Your task to perform on an android device: toggle data saver in the chrome app Image 0: 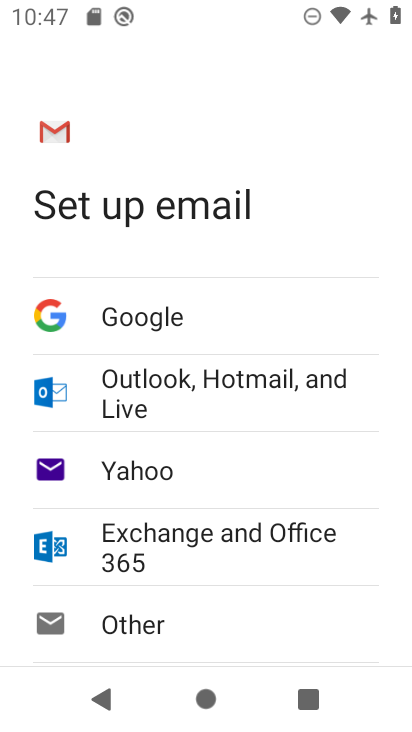
Step 0: press back button
Your task to perform on an android device: toggle data saver in the chrome app Image 1: 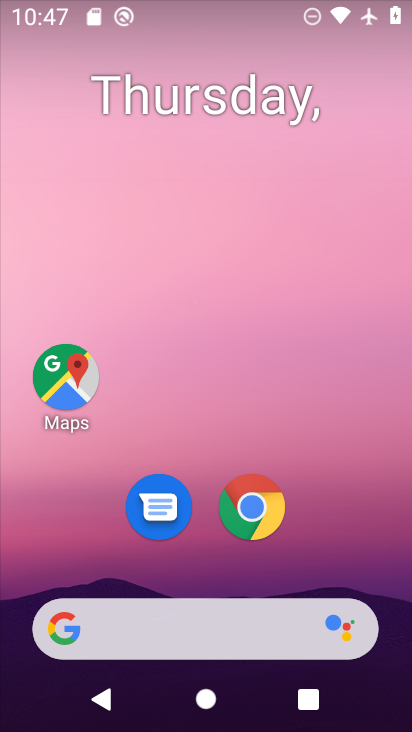
Step 1: drag from (315, 539) to (291, 31)
Your task to perform on an android device: toggle data saver in the chrome app Image 2: 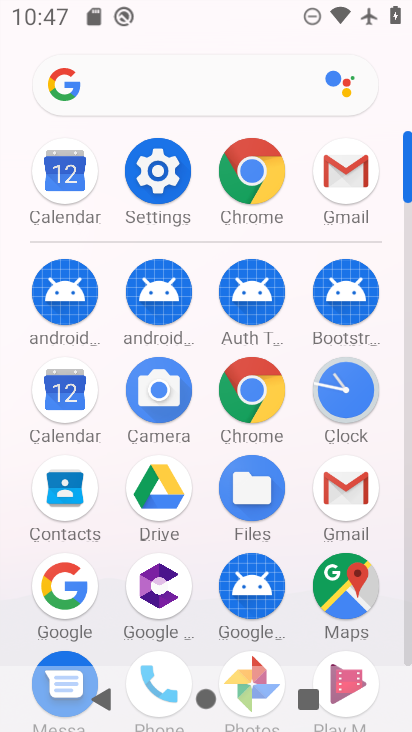
Step 2: click (250, 380)
Your task to perform on an android device: toggle data saver in the chrome app Image 3: 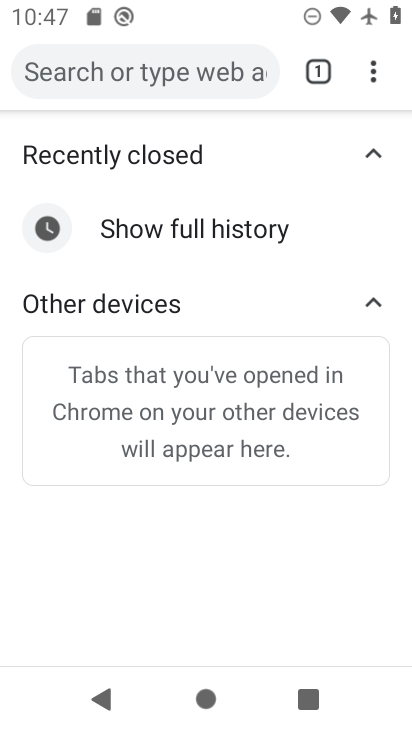
Step 3: drag from (373, 81) to (138, 499)
Your task to perform on an android device: toggle data saver in the chrome app Image 4: 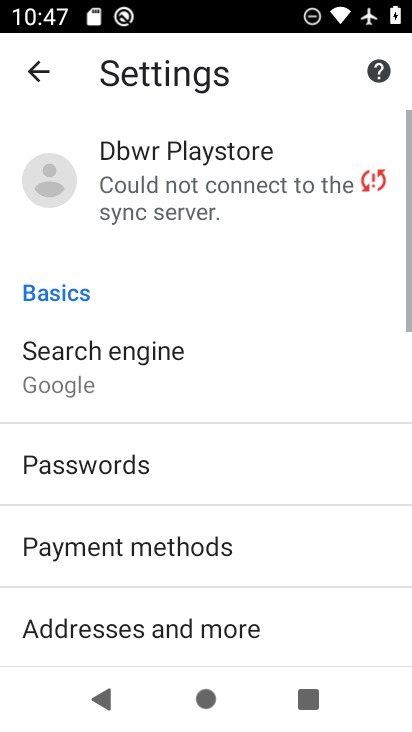
Step 4: drag from (246, 550) to (253, 181)
Your task to perform on an android device: toggle data saver in the chrome app Image 5: 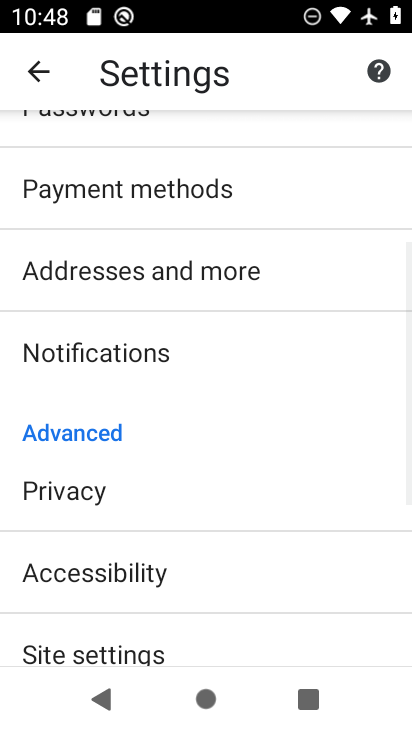
Step 5: drag from (213, 596) to (221, 175)
Your task to perform on an android device: toggle data saver in the chrome app Image 6: 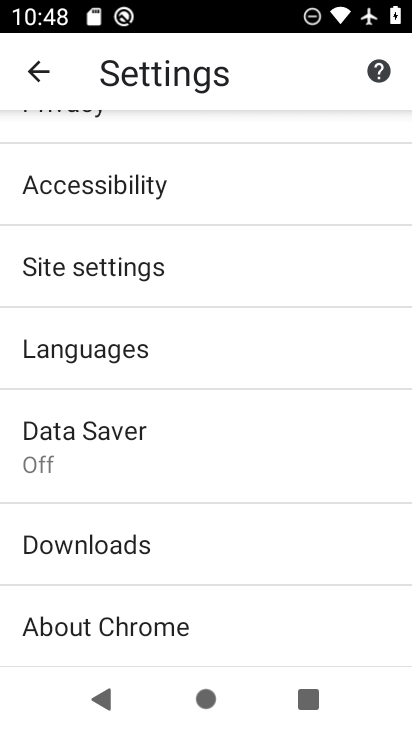
Step 6: drag from (188, 576) to (206, 276)
Your task to perform on an android device: toggle data saver in the chrome app Image 7: 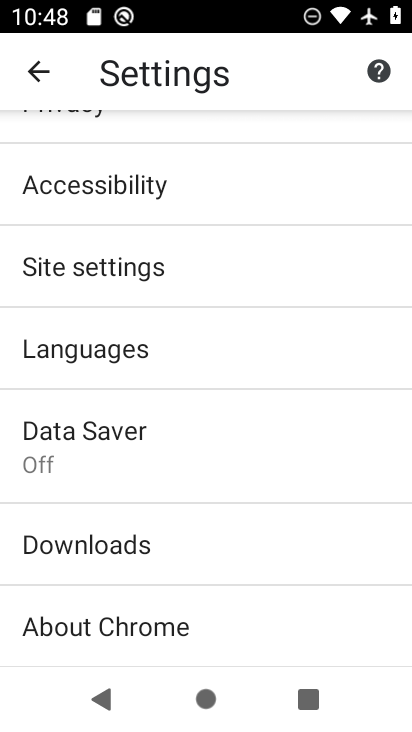
Step 7: click (126, 434)
Your task to perform on an android device: toggle data saver in the chrome app Image 8: 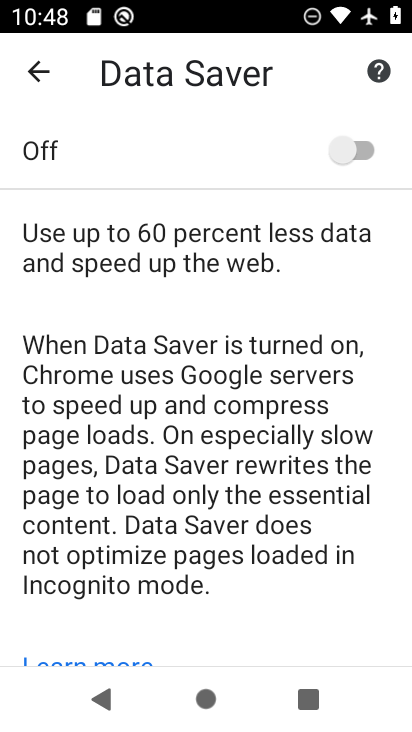
Step 8: click (355, 144)
Your task to perform on an android device: toggle data saver in the chrome app Image 9: 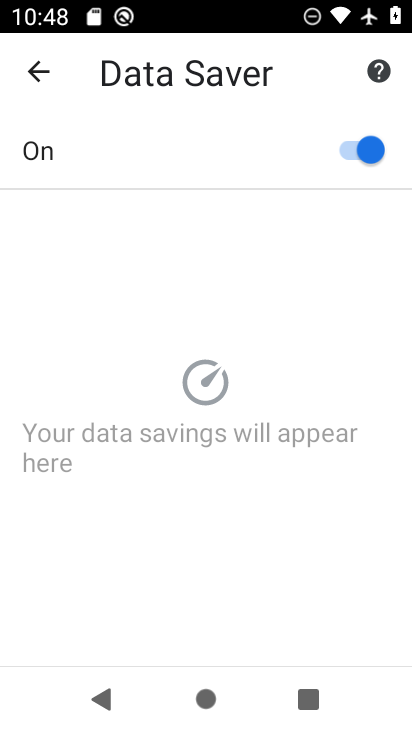
Step 9: task complete